Your task to perform on an android device: check android version Image 0: 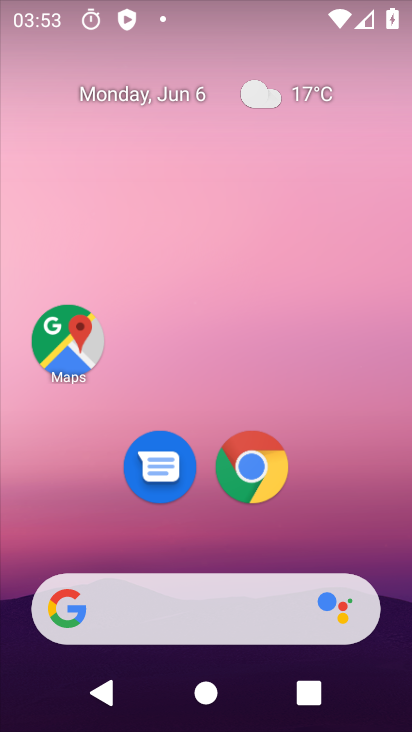
Step 0: drag from (211, 479) to (212, 76)
Your task to perform on an android device: check android version Image 1: 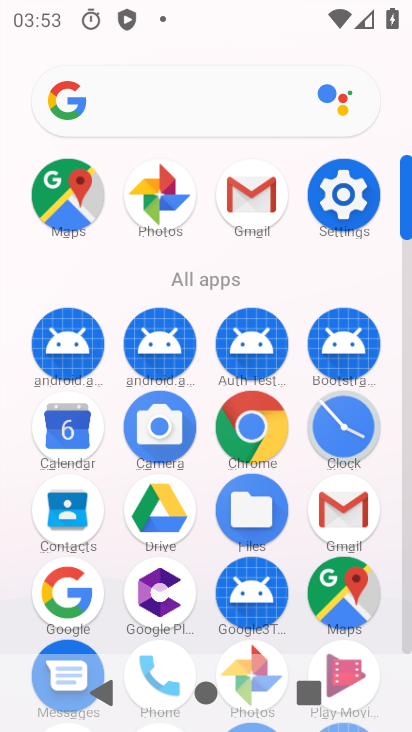
Step 1: click (341, 189)
Your task to perform on an android device: check android version Image 2: 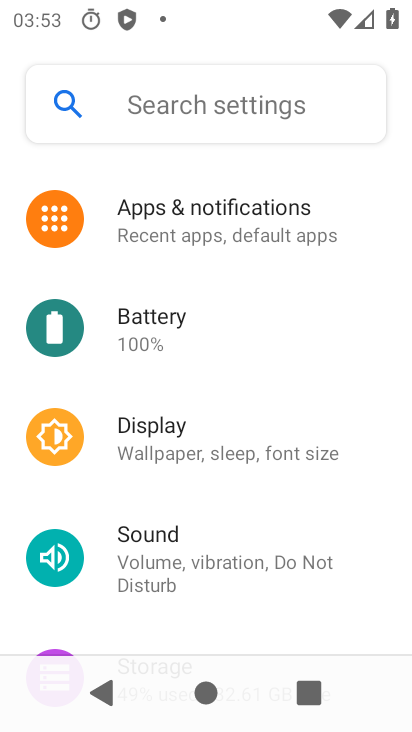
Step 2: drag from (237, 596) to (228, 132)
Your task to perform on an android device: check android version Image 3: 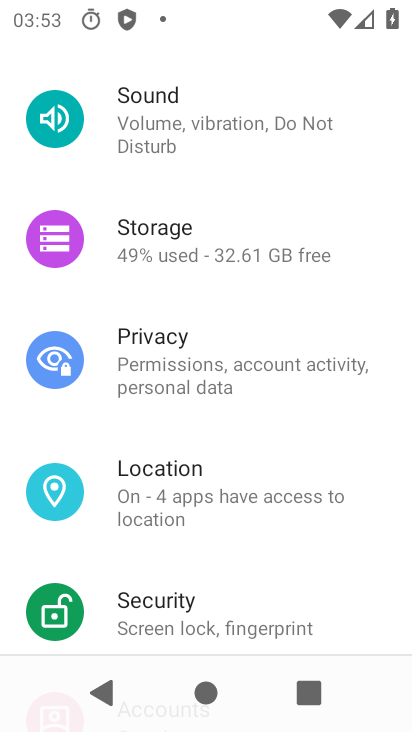
Step 3: drag from (232, 615) to (226, 209)
Your task to perform on an android device: check android version Image 4: 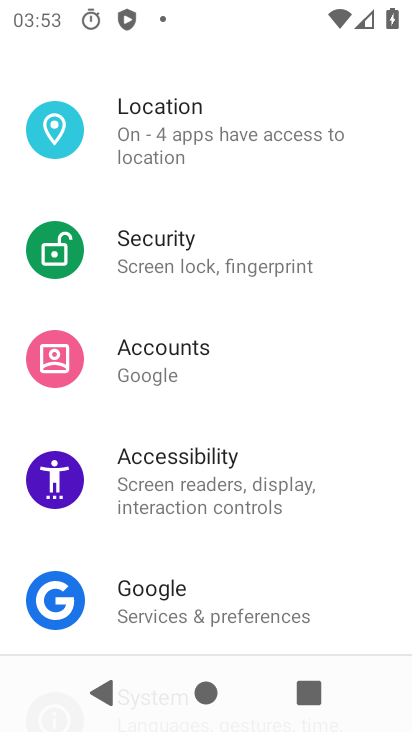
Step 4: drag from (249, 601) to (237, 100)
Your task to perform on an android device: check android version Image 5: 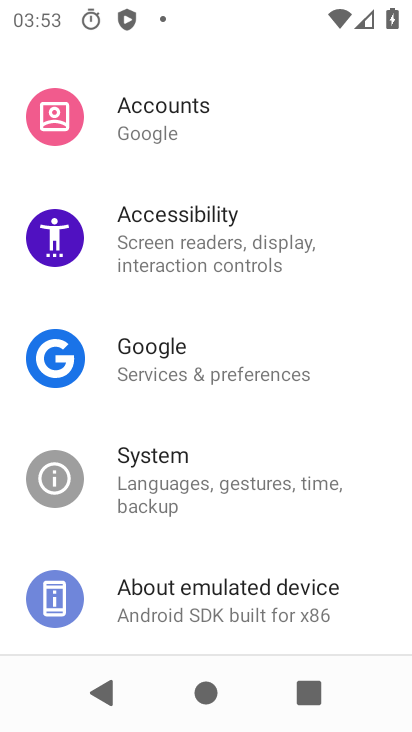
Step 5: click (229, 596)
Your task to perform on an android device: check android version Image 6: 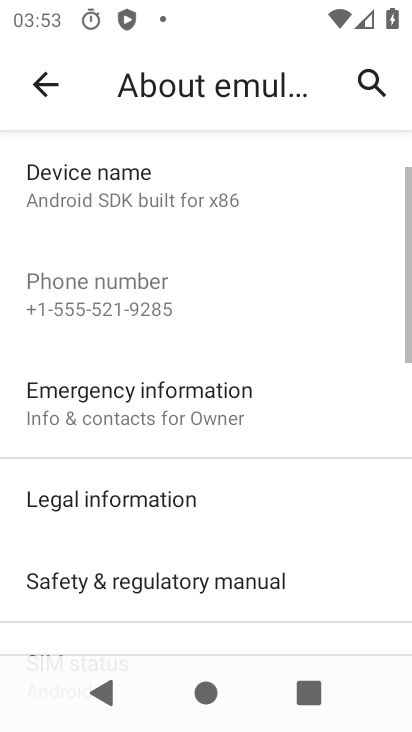
Step 6: drag from (212, 545) to (204, 158)
Your task to perform on an android device: check android version Image 7: 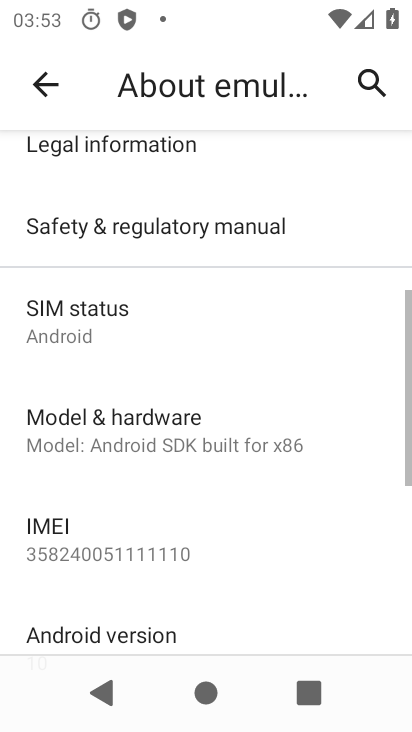
Step 7: click (197, 633)
Your task to perform on an android device: check android version Image 8: 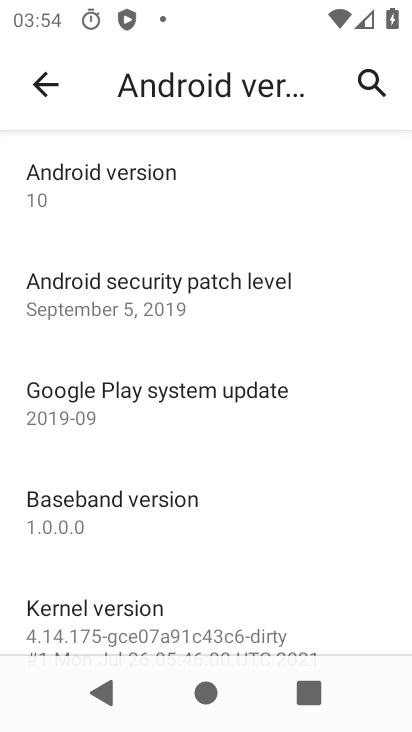
Step 8: task complete